Your task to perform on an android device: show emergency info Image 0: 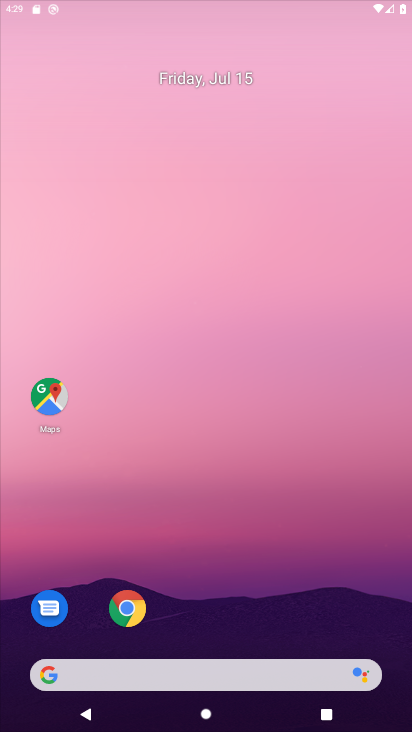
Step 0: click (325, 429)
Your task to perform on an android device: show emergency info Image 1: 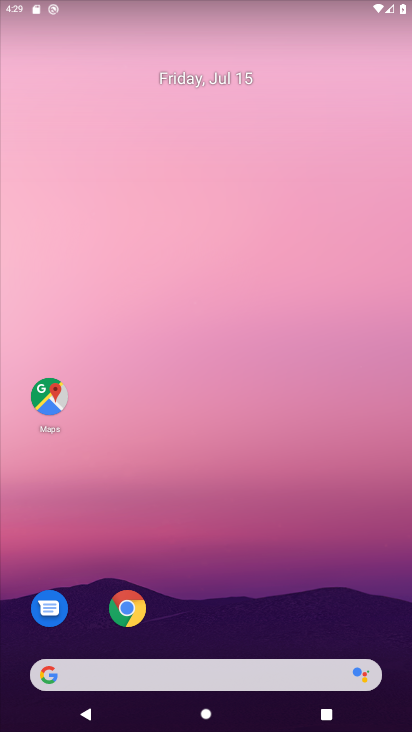
Step 1: drag from (212, 649) to (230, 67)
Your task to perform on an android device: show emergency info Image 2: 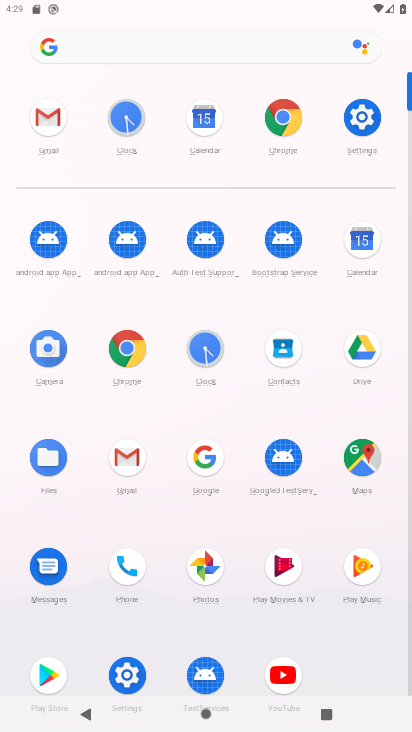
Step 2: click (131, 673)
Your task to perform on an android device: show emergency info Image 3: 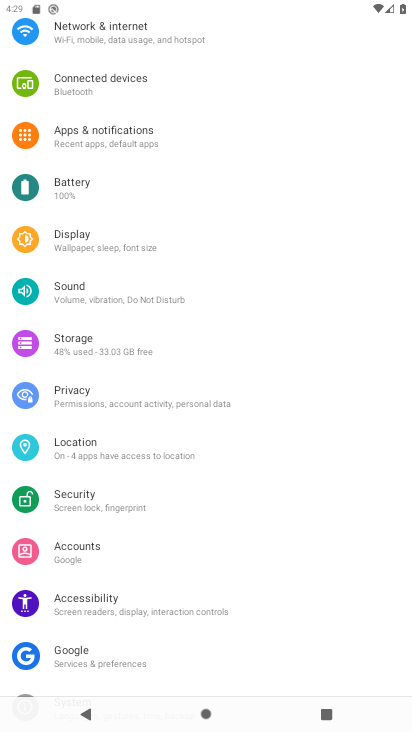
Step 3: drag from (149, 591) to (145, 239)
Your task to perform on an android device: show emergency info Image 4: 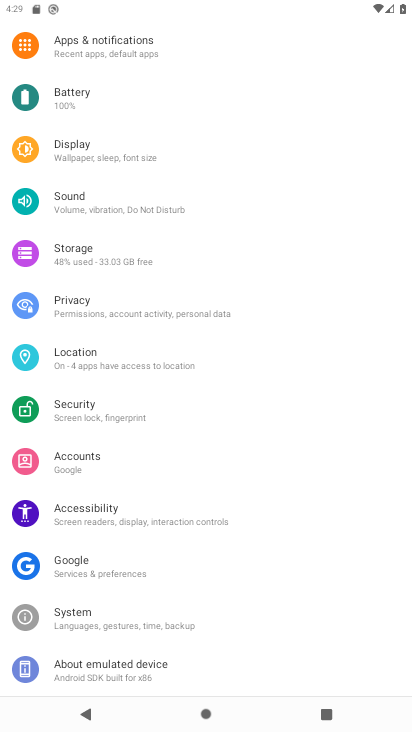
Step 4: click (122, 677)
Your task to perform on an android device: show emergency info Image 5: 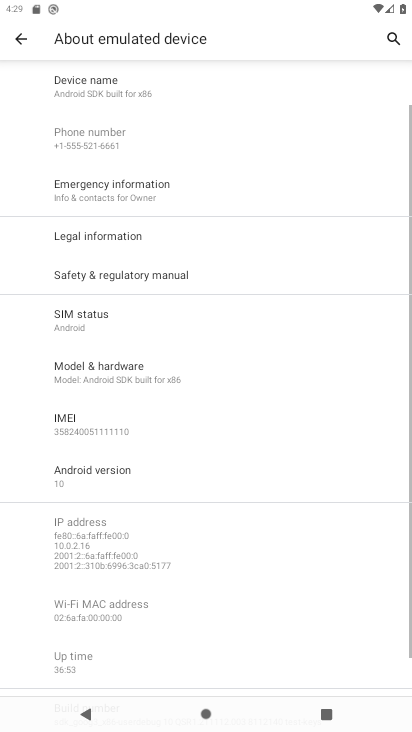
Step 5: click (141, 192)
Your task to perform on an android device: show emergency info Image 6: 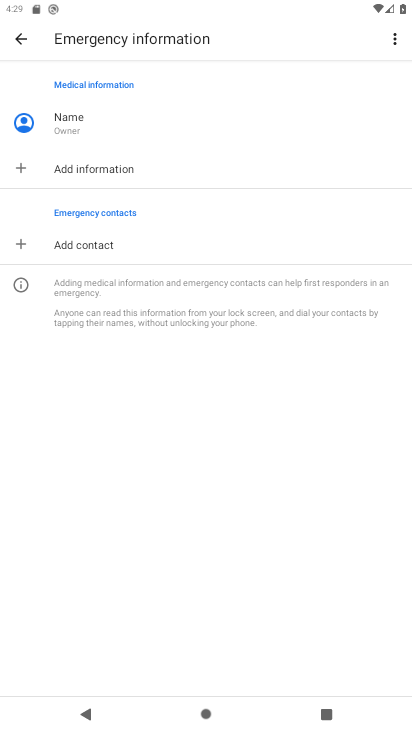
Step 6: task complete